Your task to perform on an android device: turn off smart reply in the gmail app Image 0: 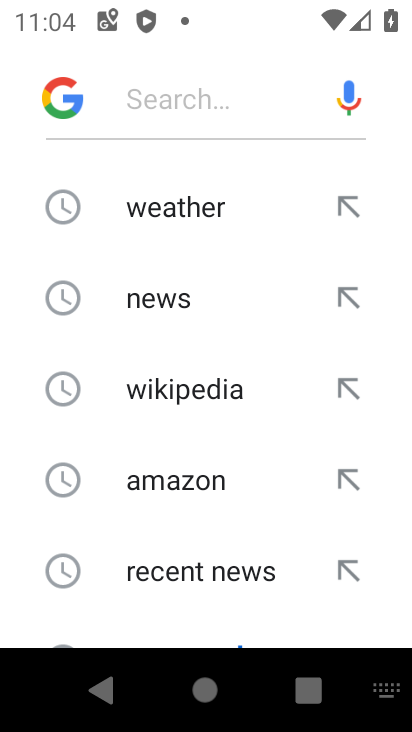
Step 0: press home button
Your task to perform on an android device: turn off smart reply in the gmail app Image 1: 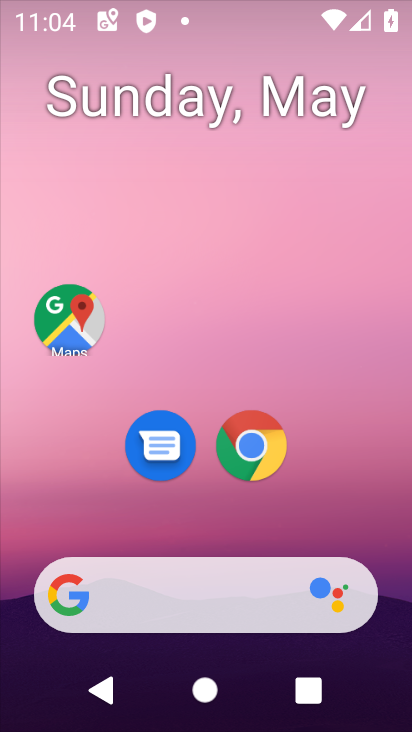
Step 1: drag from (345, 474) to (163, 16)
Your task to perform on an android device: turn off smart reply in the gmail app Image 2: 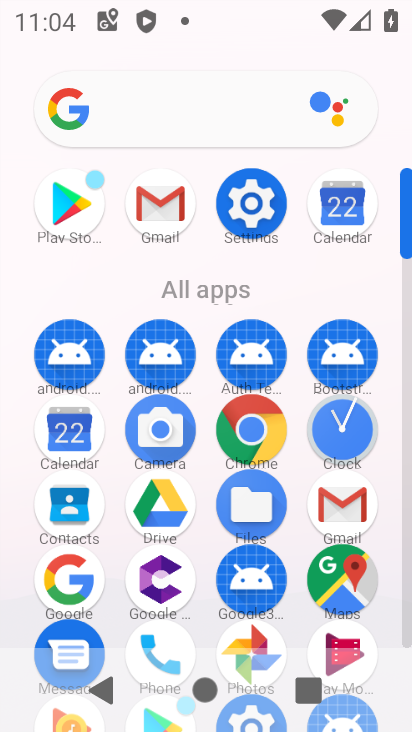
Step 2: click (350, 508)
Your task to perform on an android device: turn off smart reply in the gmail app Image 3: 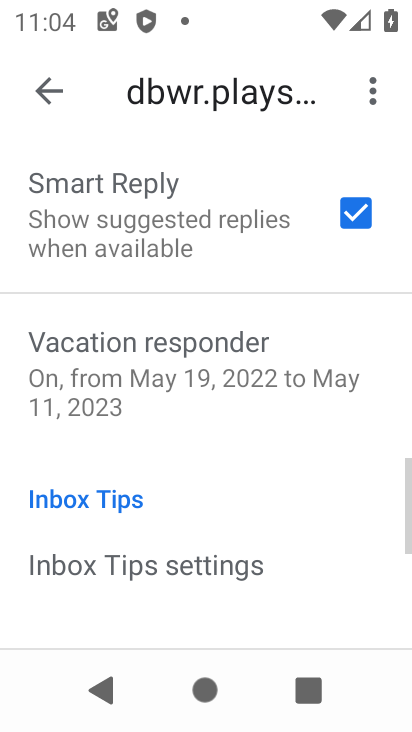
Step 3: click (348, 219)
Your task to perform on an android device: turn off smart reply in the gmail app Image 4: 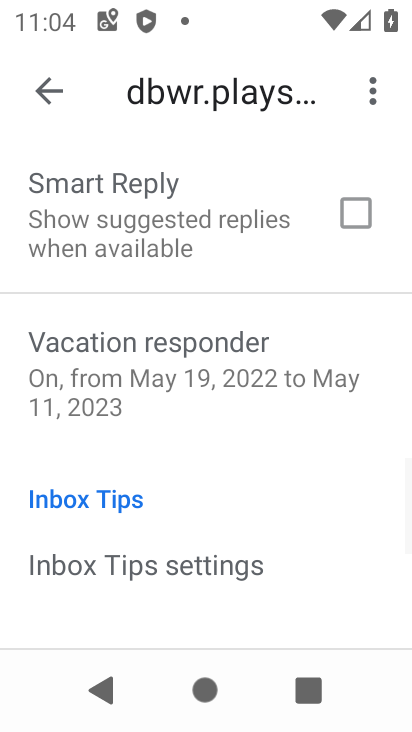
Step 4: task complete